Your task to perform on an android device: turn notification dots on Image 0: 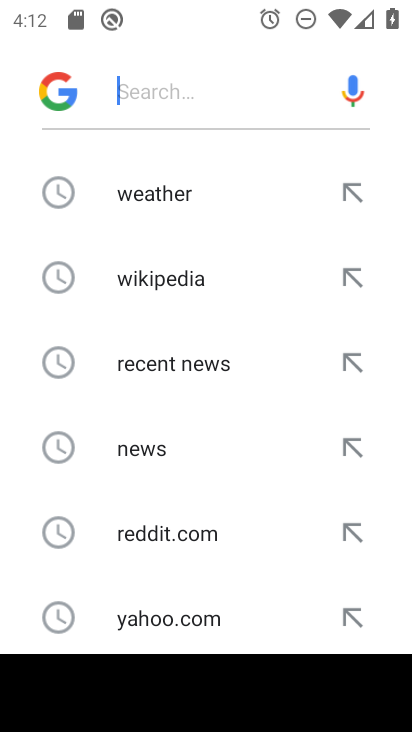
Step 0: press home button
Your task to perform on an android device: turn notification dots on Image 1: 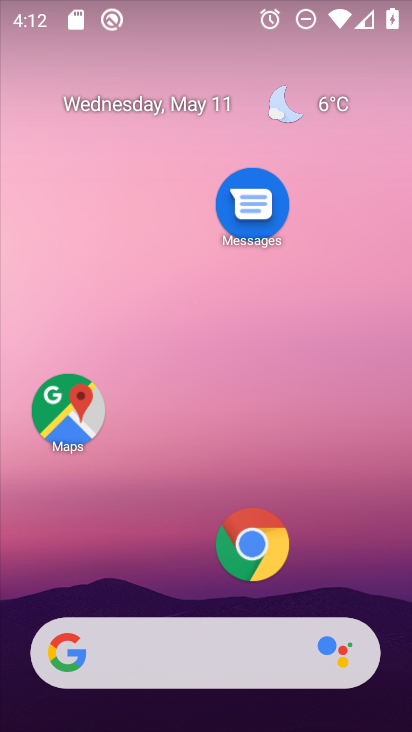
Step 1: drag from (124, 585) to (203, 84)
Your task to perform on an android device: turn notification dots on Image 2: 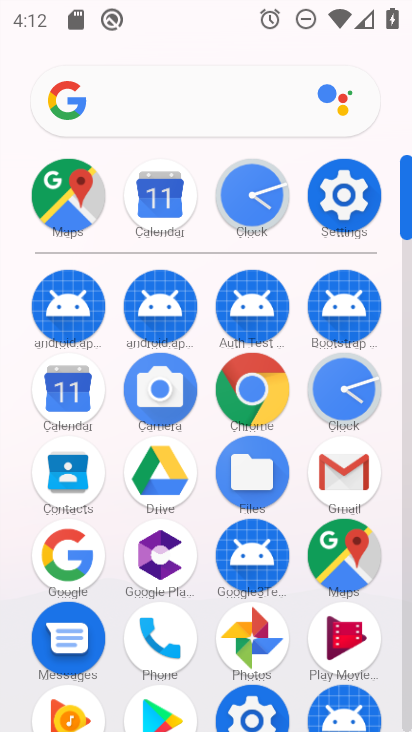
Step 2: click (348, 193)
Your task to perform on an android device: turn notification dots on Image 3: 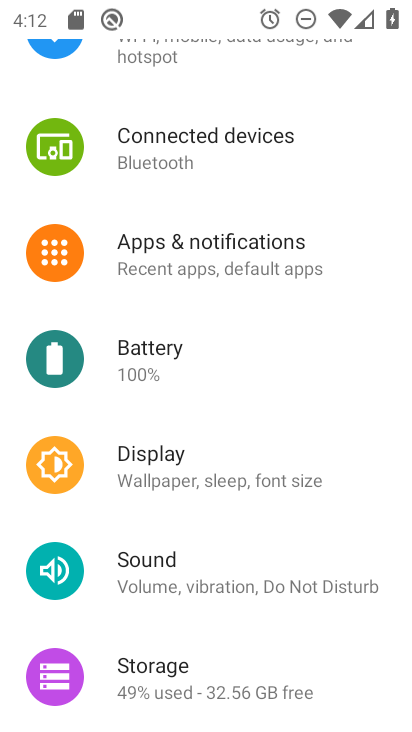
Step 3: click (204, 243)
Your task to perform on an android device: turn notification dots on Image 4: 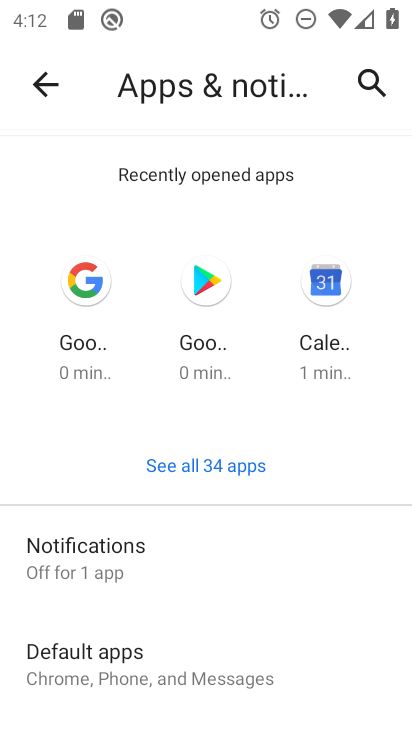
Step 4: click (153, 571)
Your task to perform on an android device: turn notification dots on Image 5: 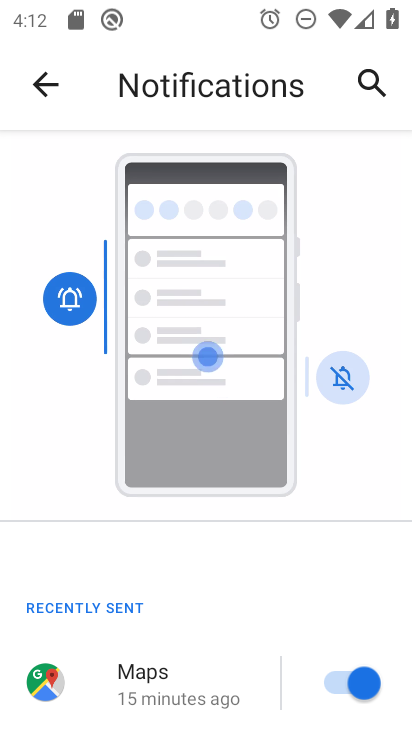
Step 5: drag from (137, 686) to (254, 159)
Your task to perform on an android device: turn notification dots on Image 6: 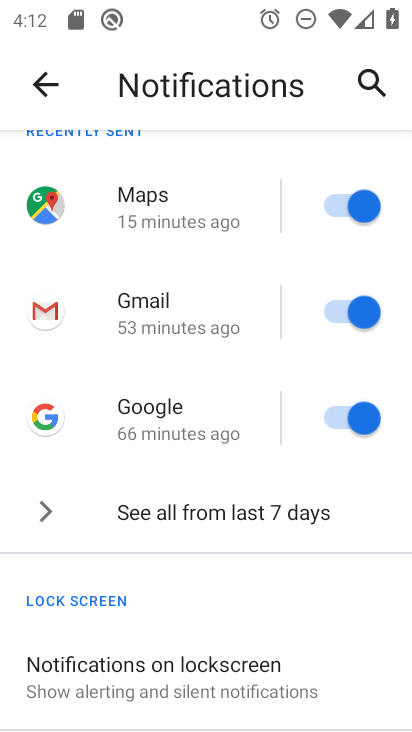
Step 6: drag from (143, 661) to (263, 251)
Your task to perform on an android device: turn notification dots on Image 7: 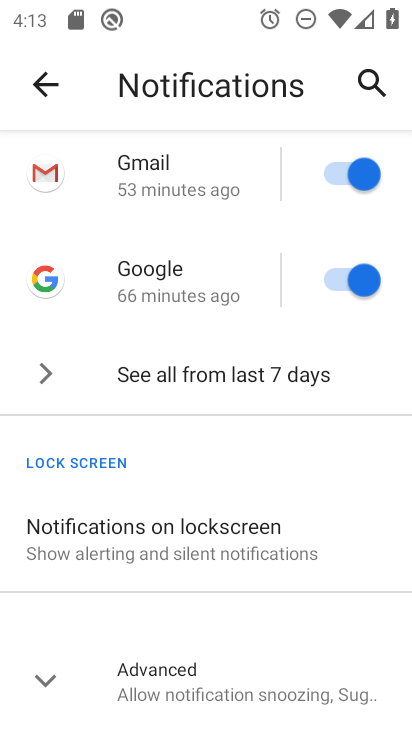
Step 7: drag from (252, 668) to (330, 134)
Your task to perform on an android device: turn notification dots on Image 8: 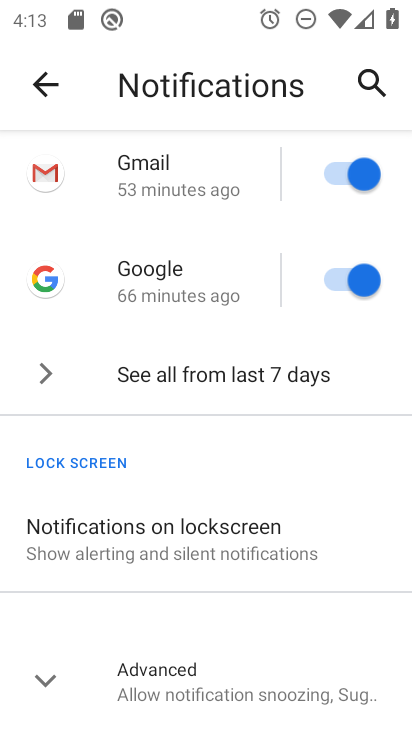
Step 8: click (215, 699)
Your task to perform on an android device: turn notification dots on Image 9: 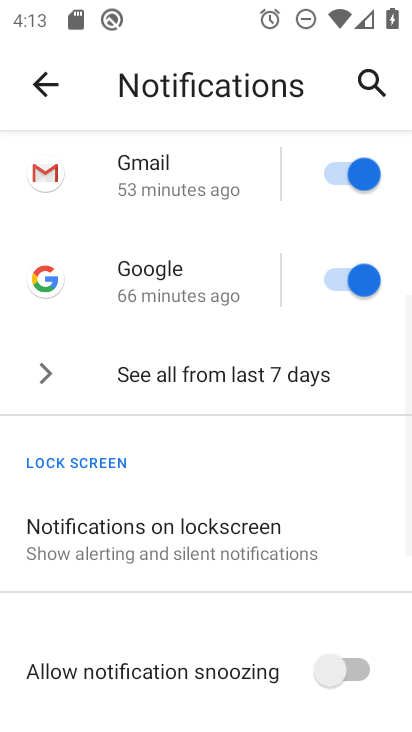
Step 9: drag from (224, 658) to (272, 210)
Your task to perform on an android device: turn notification dots on Image 10: 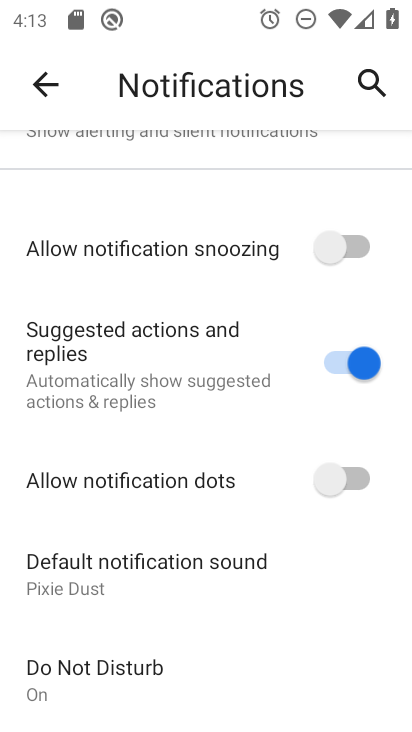
Step 10: click (337, 481)
Your task to perform on an android device: turn notification dots on Image 11: 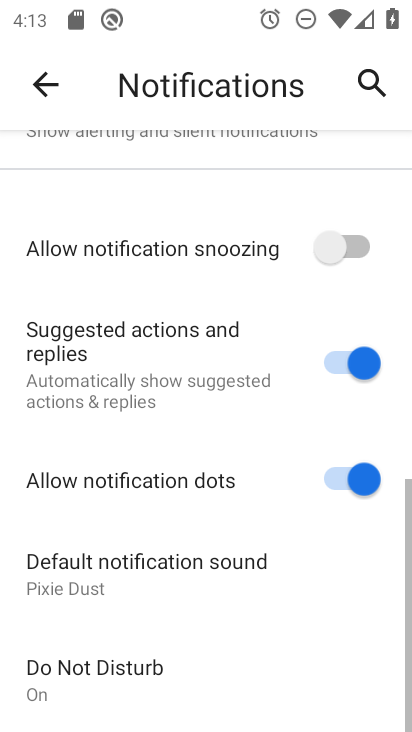
Step 11: task complete